Your task to perform on an android device: change the clock style Image 0: 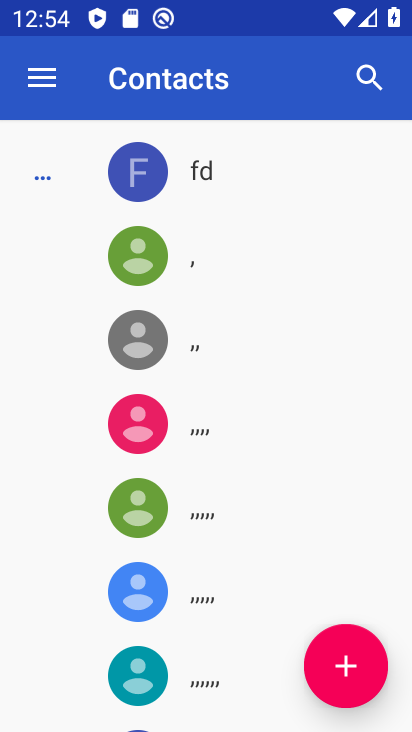
Step 0: press home button
Your task to perform on an android device: change the clock style Image 1: 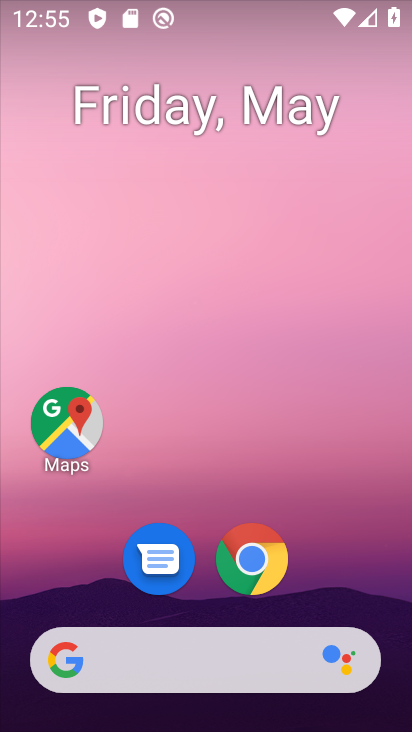
Step 1: drag from (371, 561) to (356, 176)
Your task to perform on an android device: change the clock style Image 2: 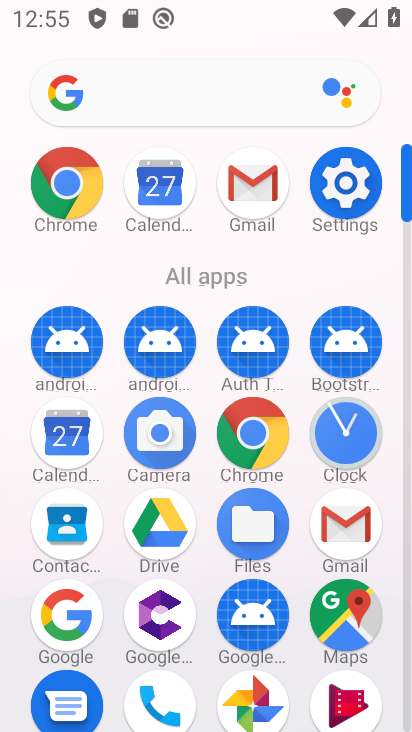
Step 2: click (350, 427)
Your task to perform on an android device: change the clock style Image 3: 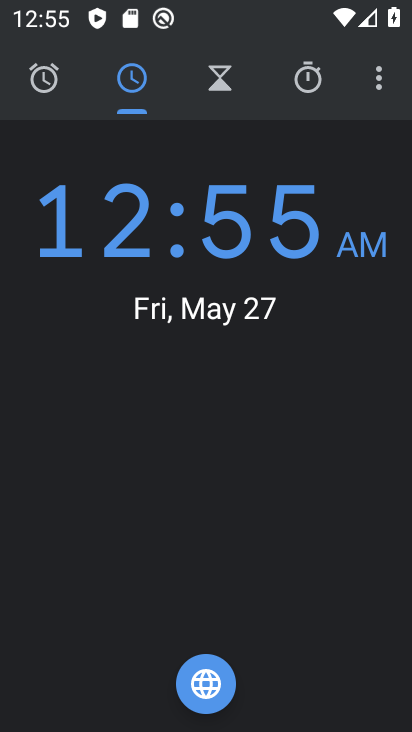
Step 3: click (393, 75)
Your task to perform on an android device: change the clock style Image 4: 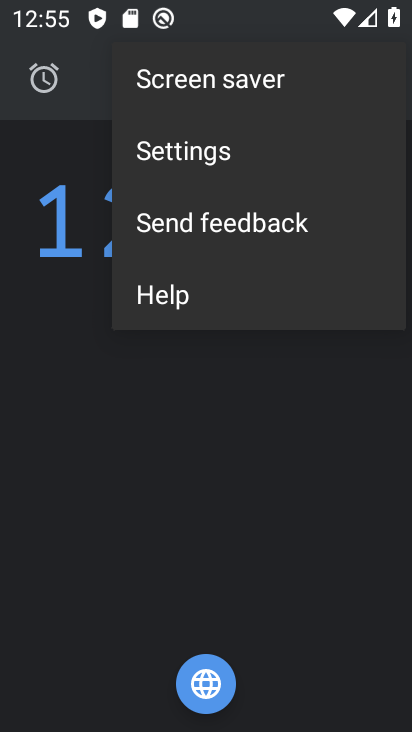
Step 4: click (249, 144)
Your task to perform on an android device: change the clock style Image 5: 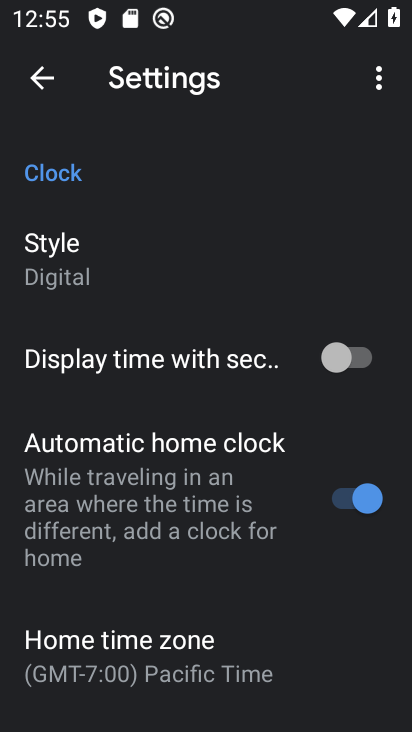
Step 5: click (134, 255)
Your task to perform on an android device: change the clock style Image 6: 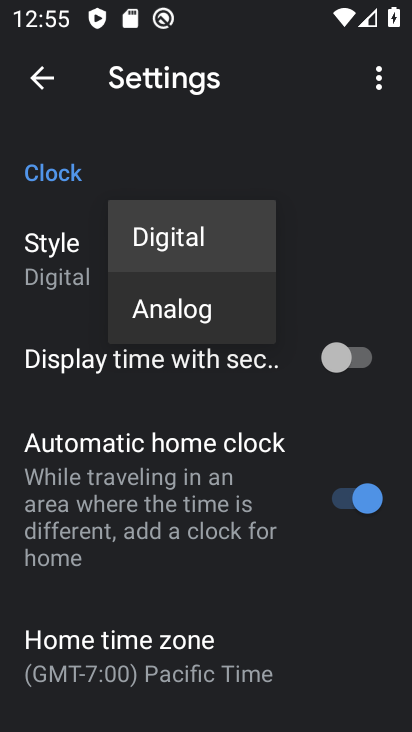
Step 6: click (178, 312)
Your task to perform on an android device: change the clock style Image 7: 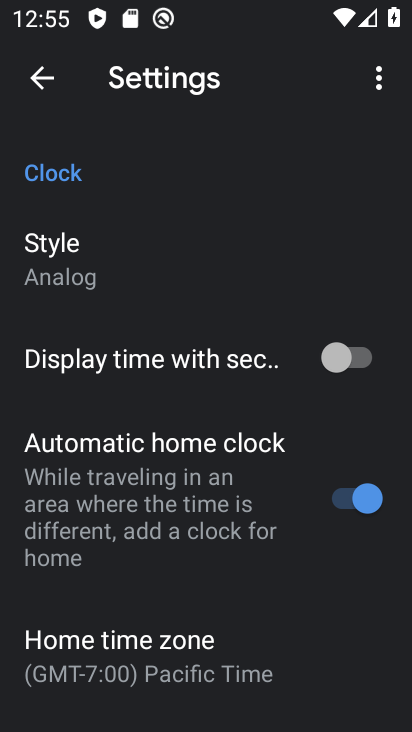
Step 7: task complete